Your task to perform on an android device: Open calendar and show me the fourth week of next month Image 0: 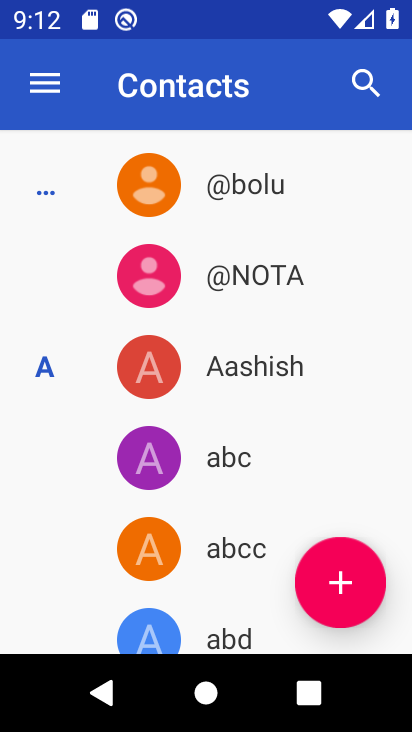
Step 0: press home button
Your task to perform on an android device: Open calendar and show me the fourth week of next month Image 1: 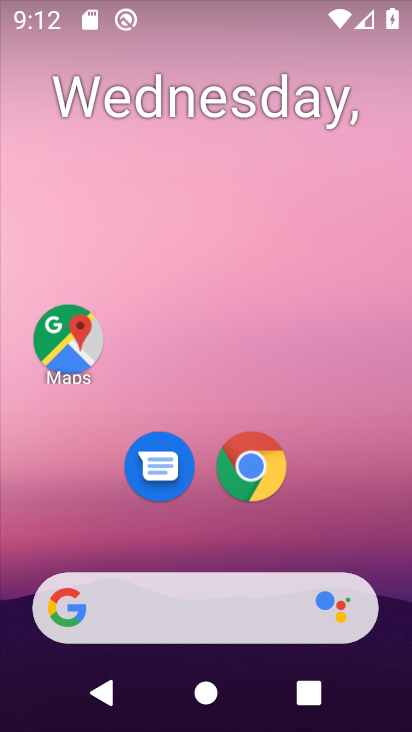
Step 1: drag from (108, 568) to (189, 157)
Your task to perform on an android device: Open calendar and show me the fourth week of next month Image 2: 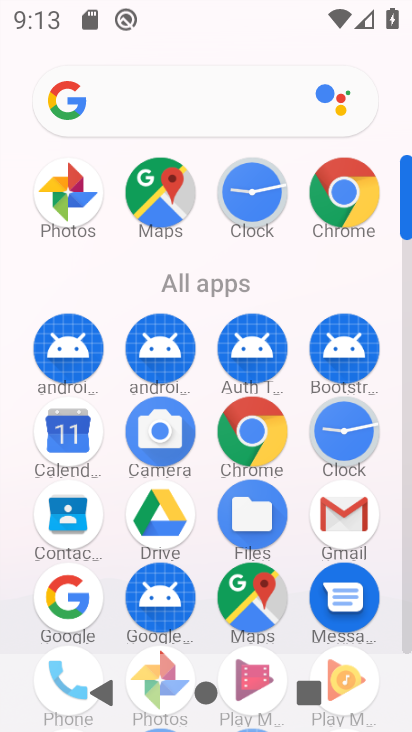
Step 2: click (70, 435)
Your task to perform on an android device: Open calendar and show me the fourth week of next month Image 3: 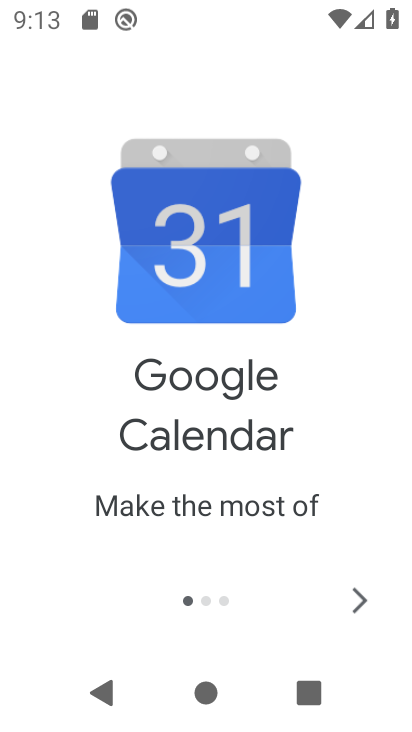
Step 3: click (361, 602)
Your task to perform on an android device: Open calendar and show me the fourth week of next month Image 4: 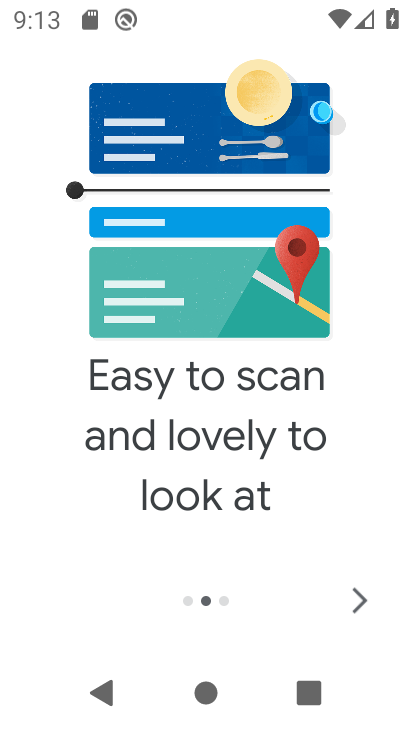
Step 4: click (361, 602)
Your task to perform on an android device: Open calendar and show me the fourth week of next month Image 5: 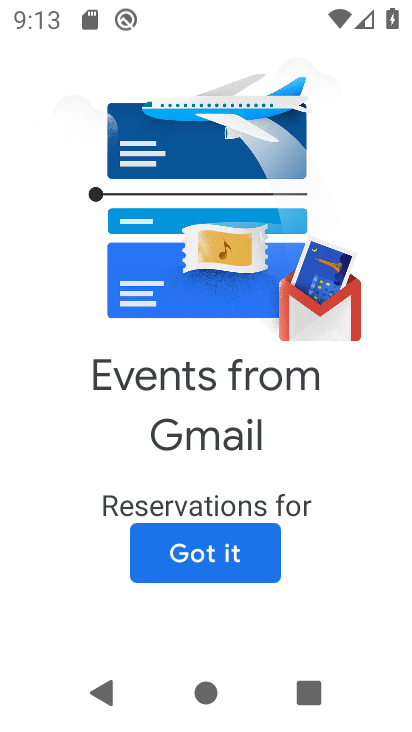
Step 5: click (249, 566)
Your task to perform on an android device: Open calendar and show me the fourth week of next month Image 6: 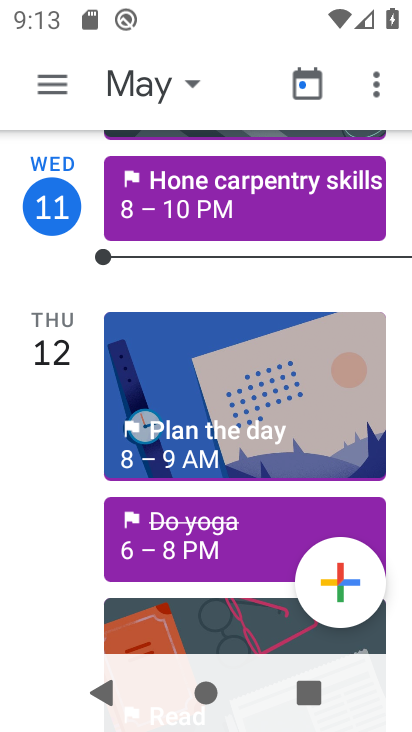
Step 6: click (123, 85)
Your task to perform on an android device: Open calendar and show me the fourth week of next month Image 7: 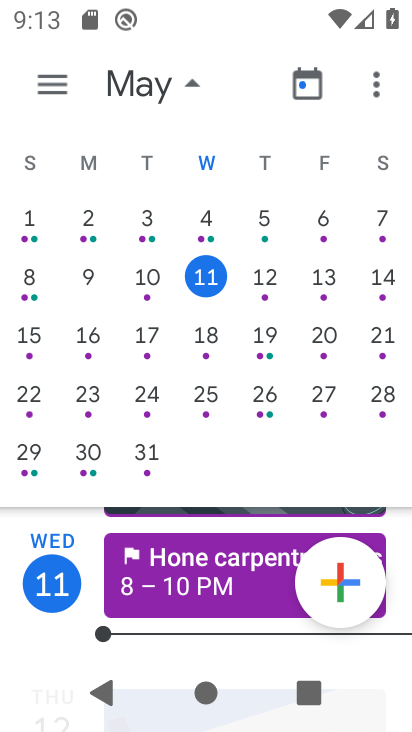
Step 7: drag from (341, 455) to (27, 419)
Your task to perform on an android device: Open calendar and show me the fourth week of next month Image 8: 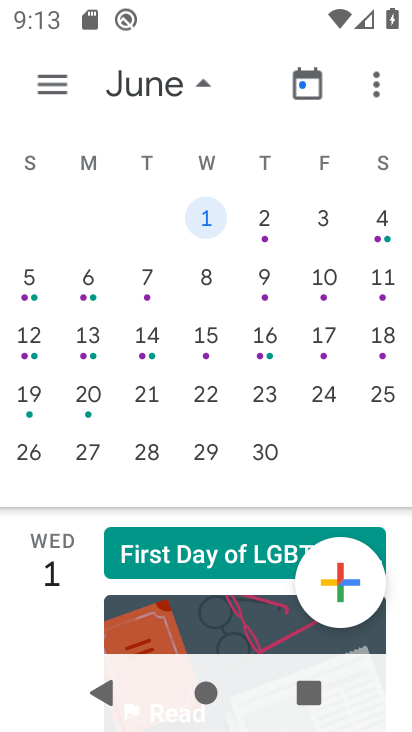
Step 8: click (24, 454)
Your task to perform on an android device: Open calendar and show me the fourth week of next month Image 9: 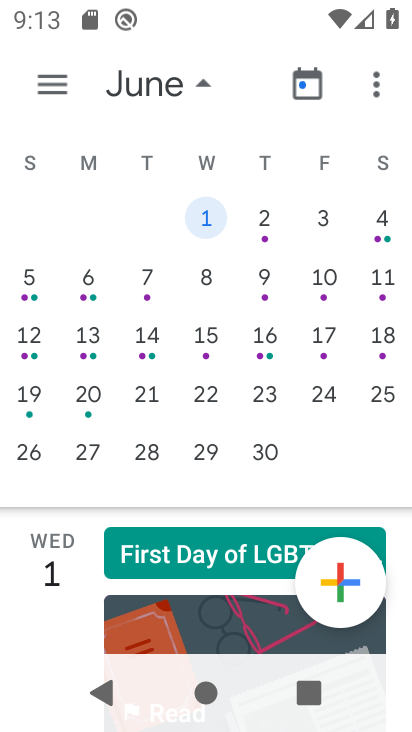
Step 9: click (26, 452)
Your task to perform on an android device: Open calendar and show me the fourth week of next month Image 10: 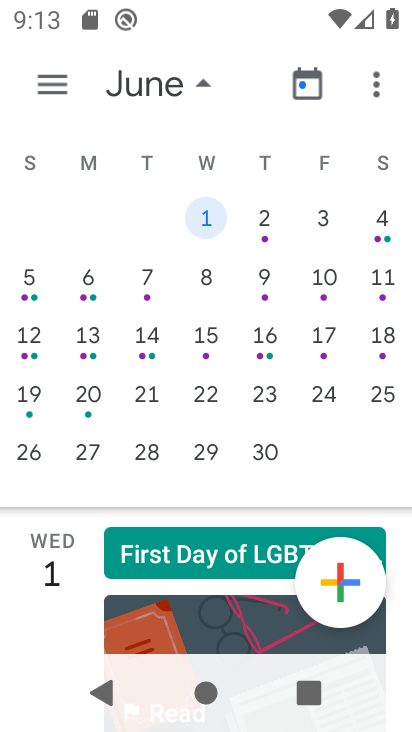
Step 10: click (43, 467)
Your task to perform on an android device: Open calendar and show me the fourth week of next month Image 11: 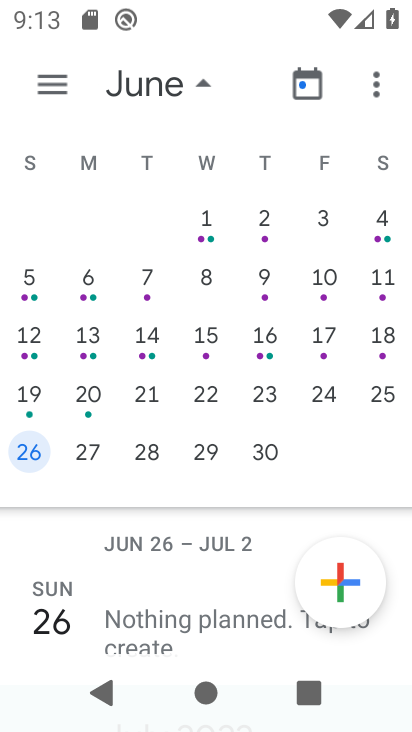
Step 11: click (45, 85)
Your task to perform on an android device: Open calendar and show me the fourth week of next month Image 12: 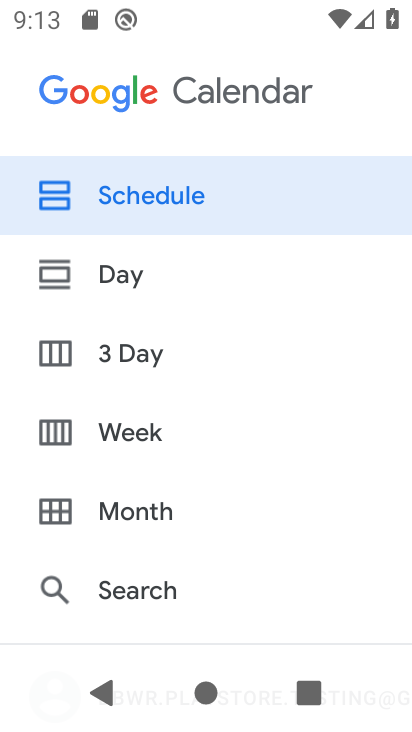
Step 12: click (160, 427)
Your task to perform on an android device: Open calendar and show me the fourth week of next month Image 13: 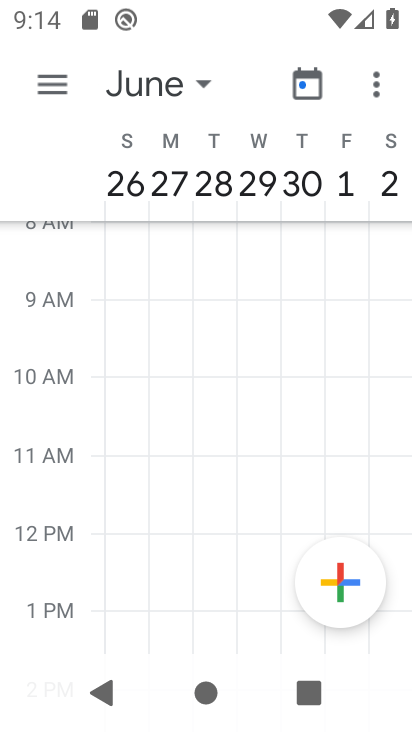
Step 13: task complete